Your task to perform on an android device: Open Google Maps Image 0: 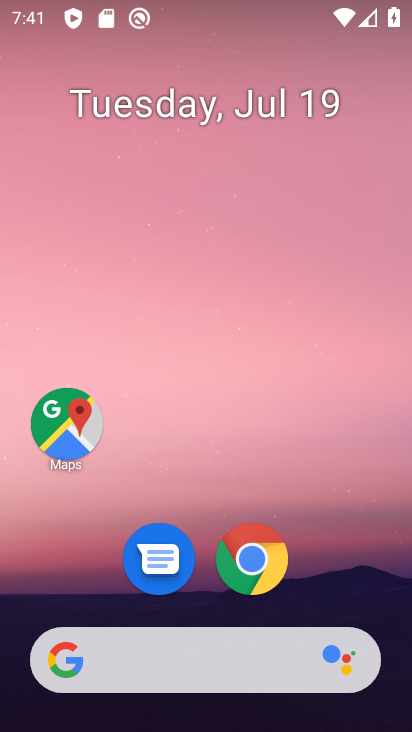
Step 0: click (57, 409)
Your task to perform on an android device: Open Google Maps Image 1: 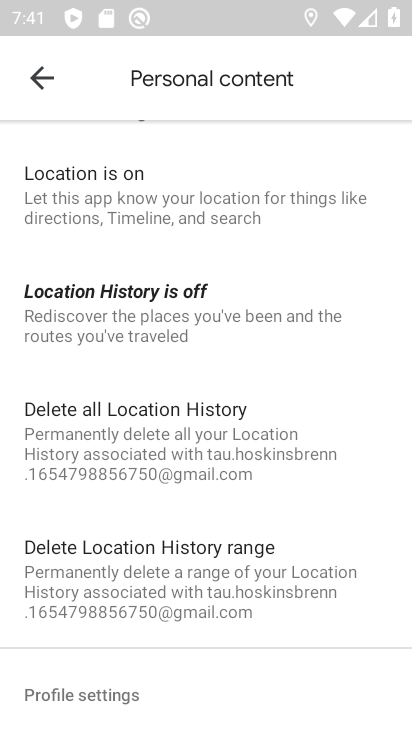
Step 1: click (42, 71)
Your task to perform on an android device: Open Google Maps Image 2: 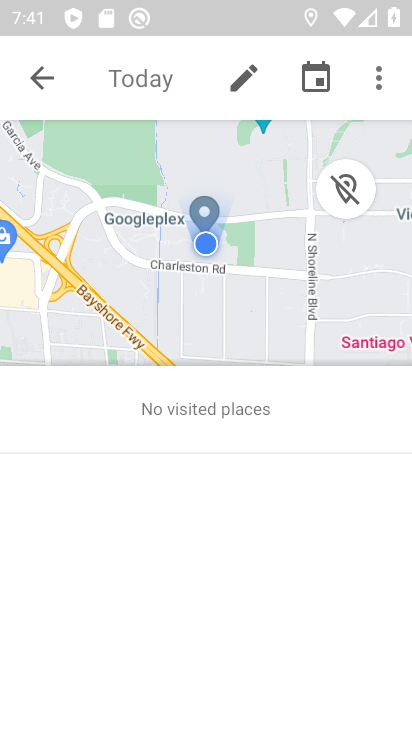
Step 2: task complete